Your task to perform on an android device: Open eBay Image 0: 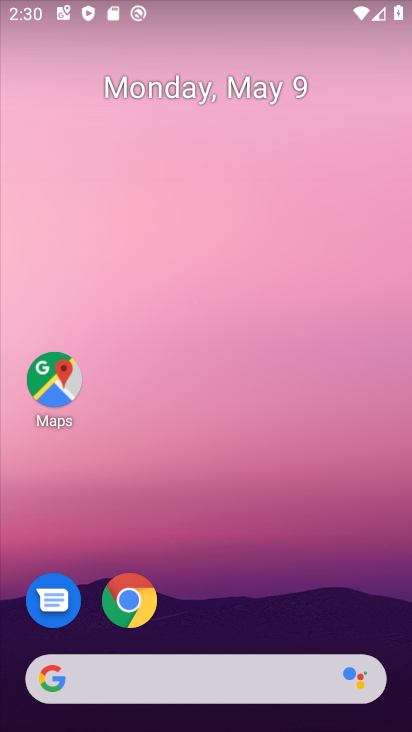
Step 0: click (136, 600)
Your task to perform on an android device: Open eBay Image 1: 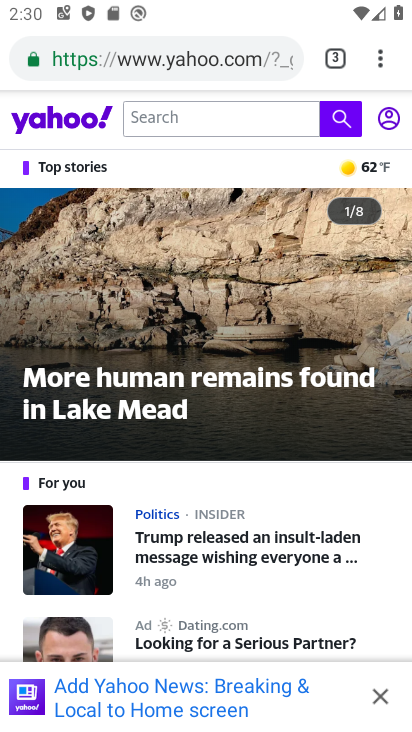
Step 1: click (321, 63)
Your task to perform on an android device: Open eBay Image 2: 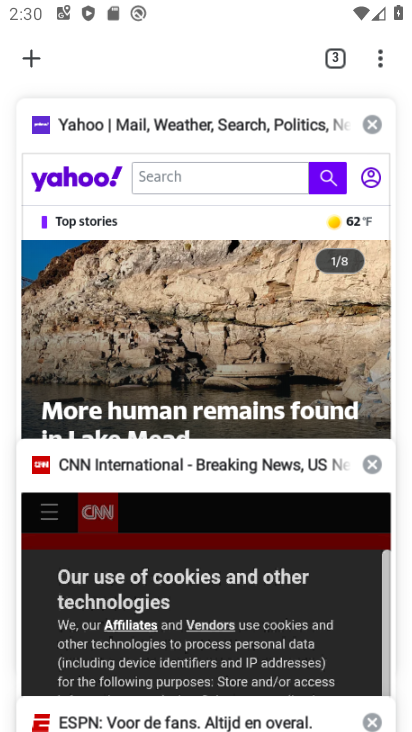
Step 2: click (43, 53)
Your task to perform on an android device: Open eBay Image 3: 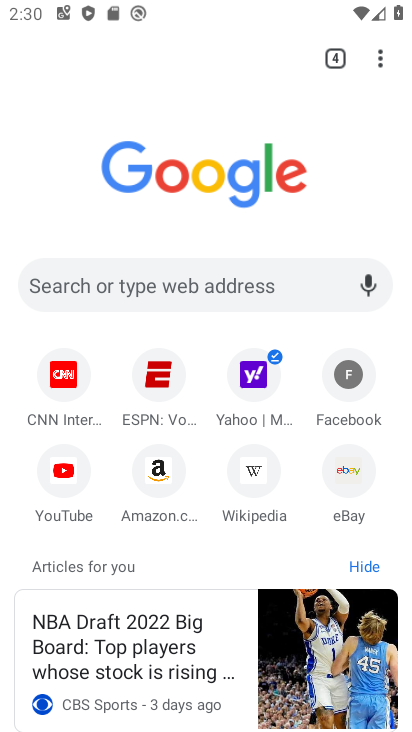
Step 3: click (162, 280)
Your task to perform on an android device: Open eBay Image 4: 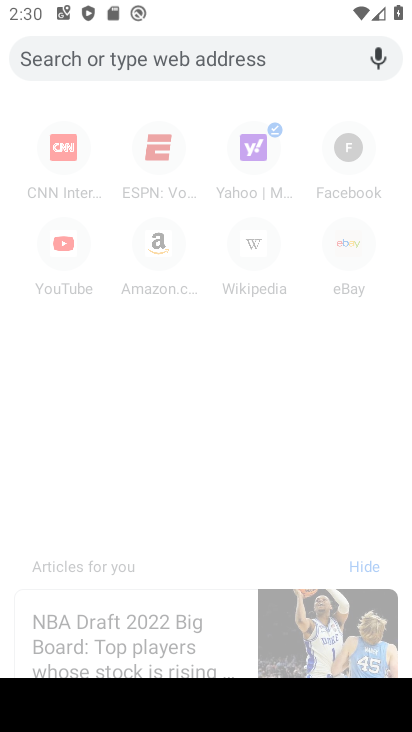
Step 4: click (87, 65)
Your task to perform on an android device: Open eBay Image 5: 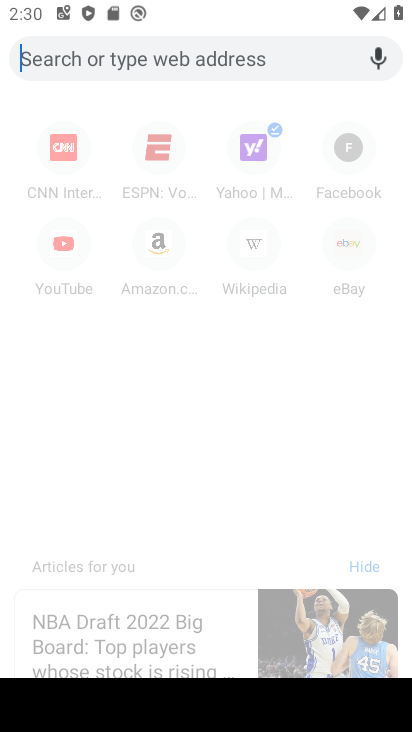
Step 5: type "ebay"
Your task to perform on an android device: Open eBay Image 6: 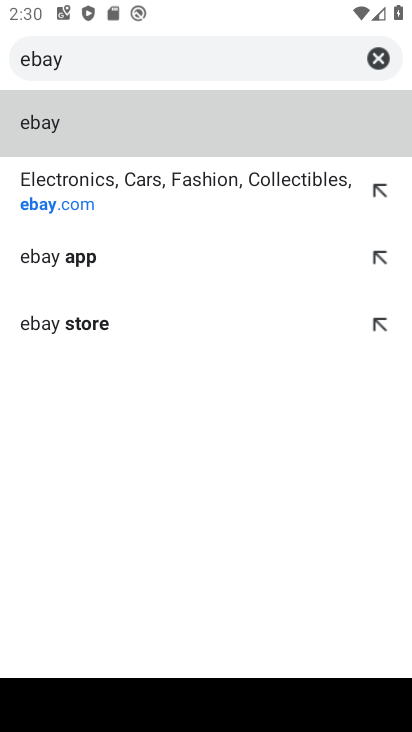
Step 6: click (61, 118)
Your task to perform on an android device: Open eBay Image 7: 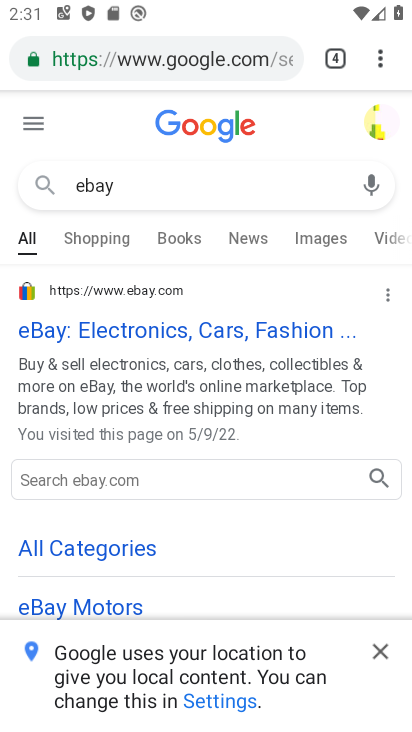
Step 7: click (142, 339)
Your task to perform on an android device: Open eBay Image 8: 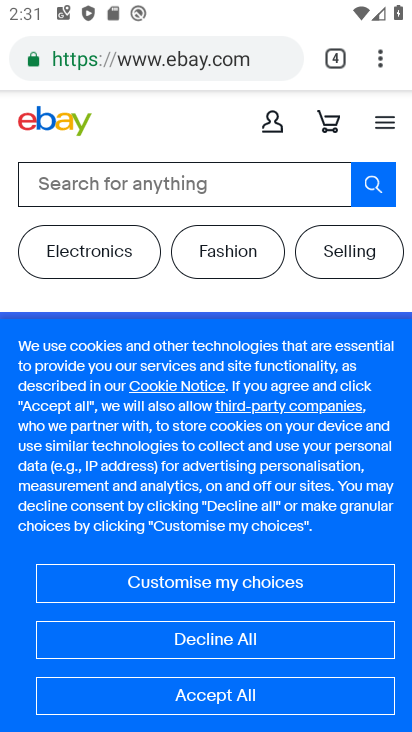
Step 8: task complete